Your task to perform on an android device: Look up the best rated bike on Walmart Image 0: 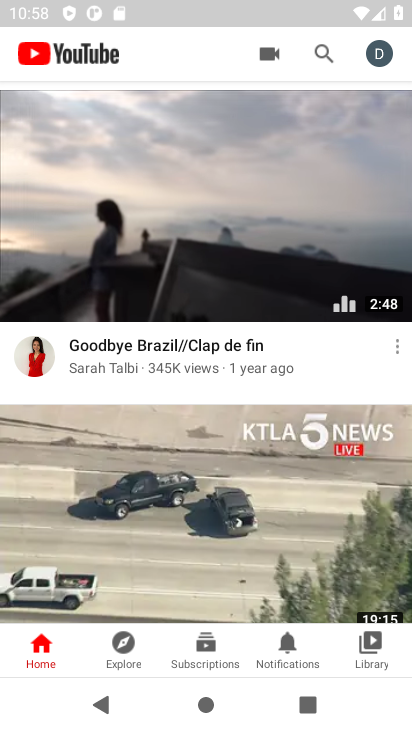
Step 0: press home button
Your task to perform on an android device: Look up the best rated bike on Walmart Image 1: 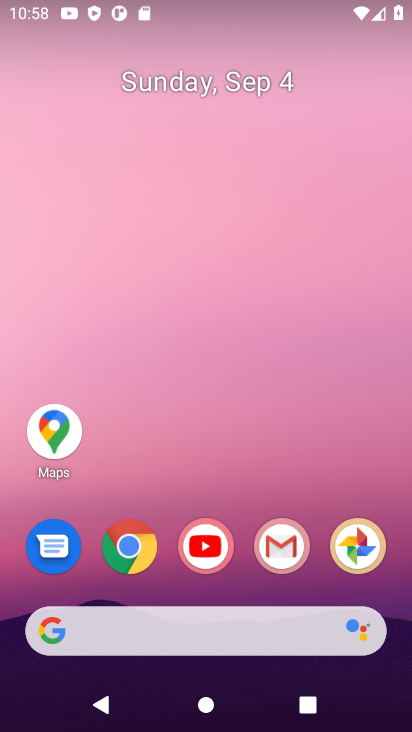
Step 1: click (132, 558)
Your task to perform on an android device: Look up the best rated bike on Walmart Image 2: 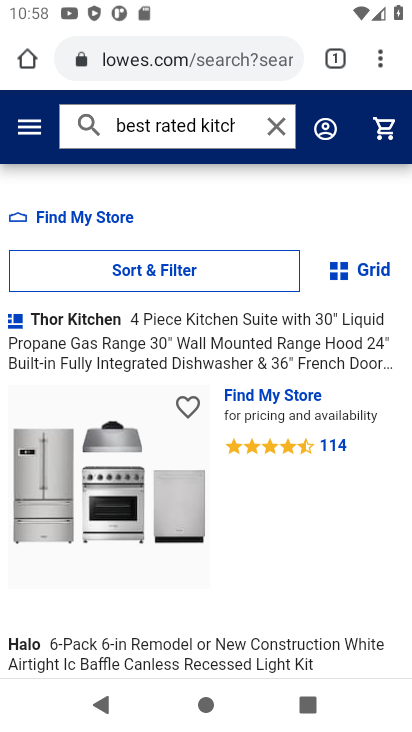
Step 2: click (191, 68)
Your task to perform on an android device: Look up the best rated bike on Walmart Image 3: 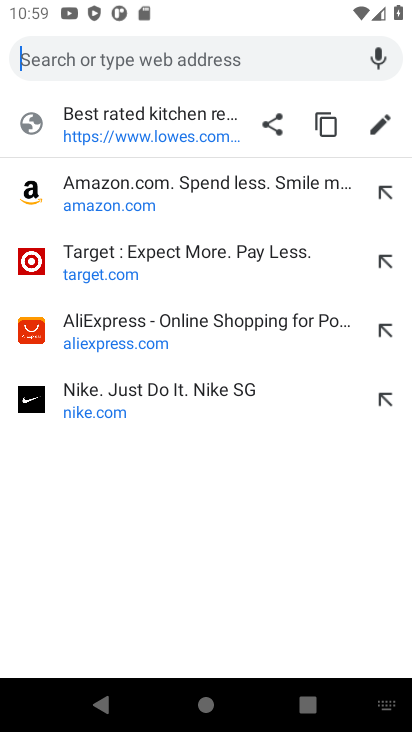
Step 3: type "Walmart"
Your task to perform on an android device: Look up the best rated bike on Walmart Image 4: 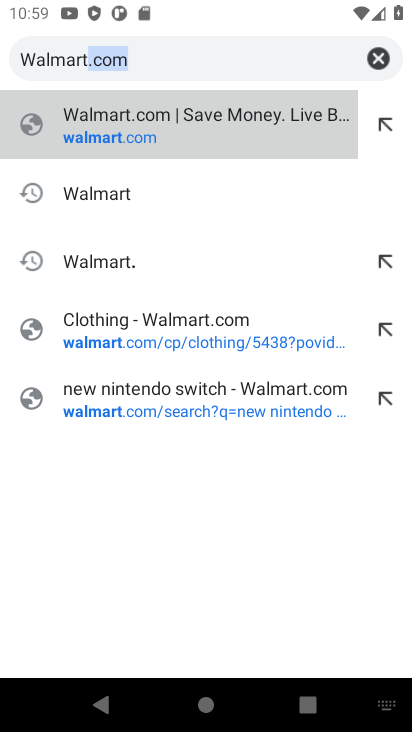
Step 4: click (109, 139)
Your task to perform on an android device: Look up the best rated bike on Walmart Image 5: 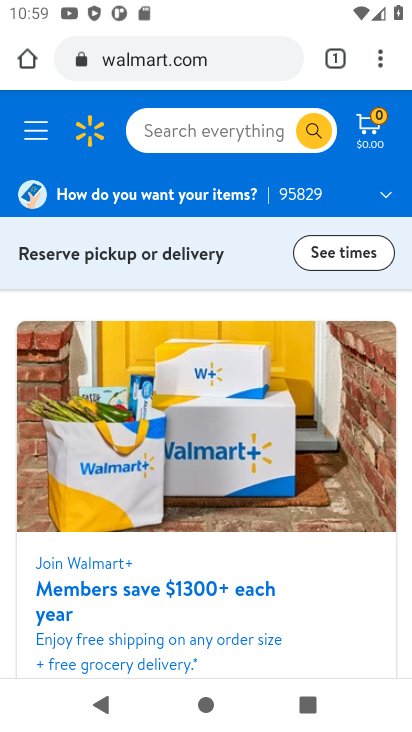
Step 5: click (232, 135)
Your task to perform on an android device: Look up the best rated bike on Walmart Image 6: 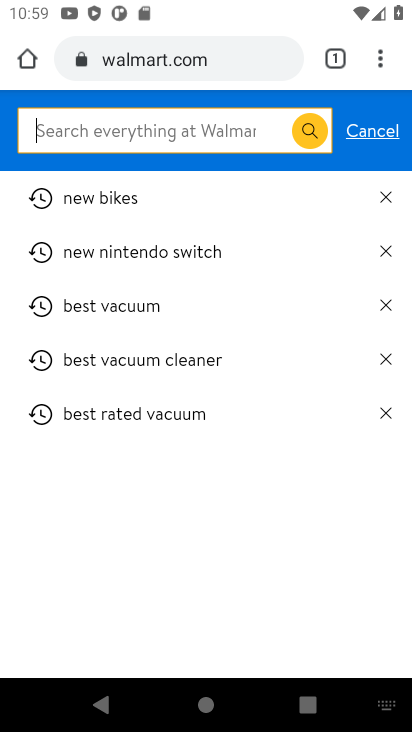
Step 6: type "best rated bike "
Your task to perform on an android device: Look up the best rated bike on Walmart Image 7: 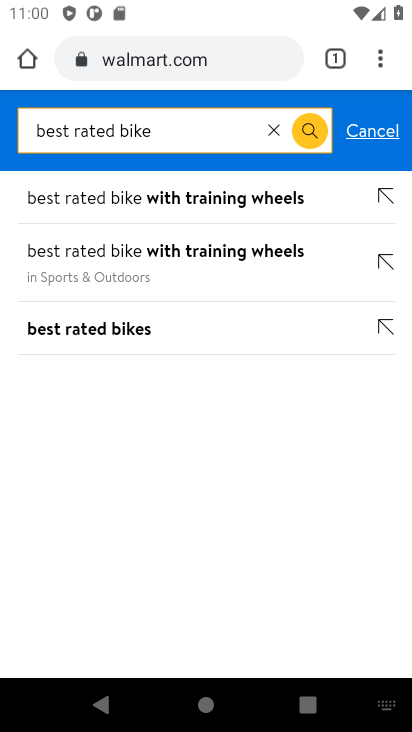
Step 7: click (310, 127)
Your task to perform on an android device: Look up the best rated bike on Walmart Image 8: 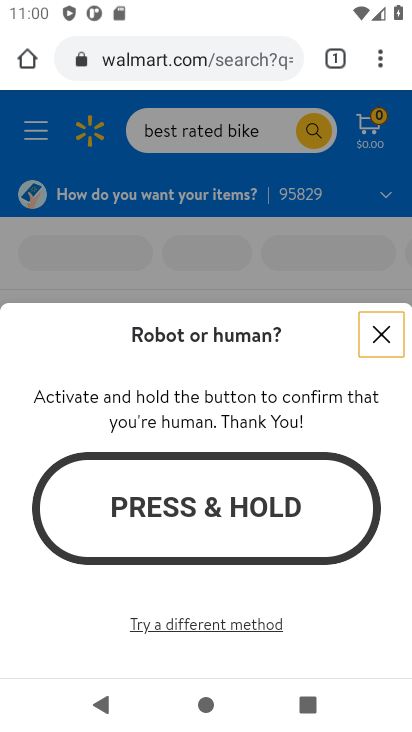
Step 8: click (201, 628)
Your task to perform on an android device: Look up the best rated bike on Walmart Image 9: 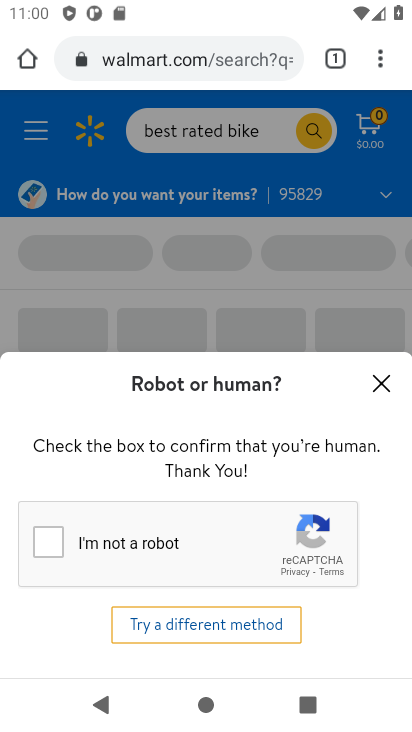
Step 9: click (43, 557)
Your task to perform on an android device: Look up the best rated bike on Walmart Image 10: 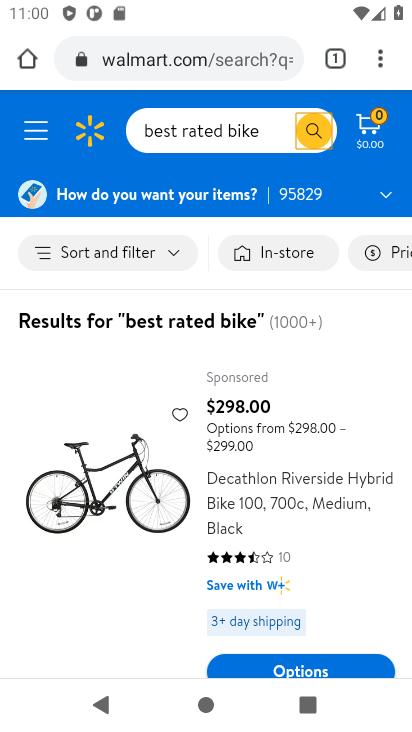
Step 10: task complete